Your task to perform on an android device: Open the contacts Image 0: 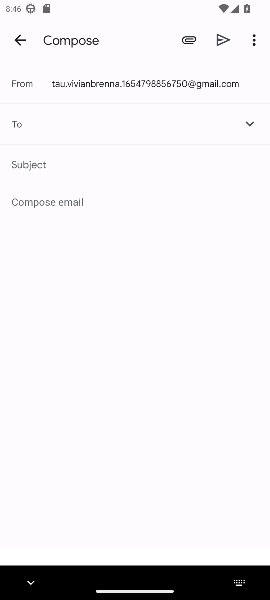
Step 0: press home button
Your task to perform on an android device: Open the contacts Image 1: 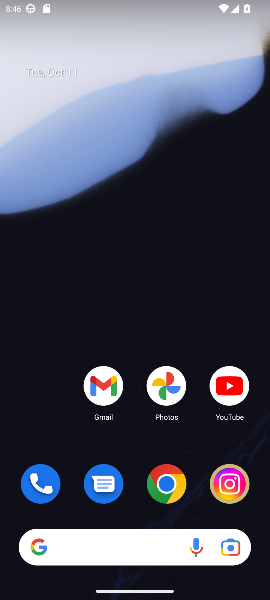
Step 1: drag from (114, 539) to (93, 166)
Your task to perform on an android device: Open the contacts Image 2: 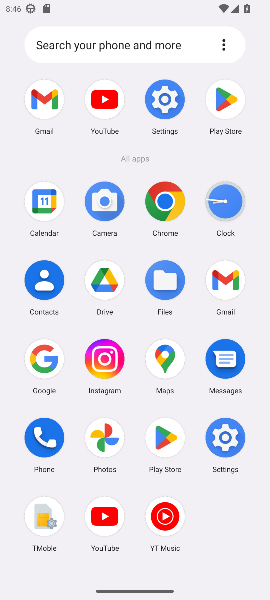
Step 2: click (46, 281)
Your task to perform on an android device: Open the contacts Image 3: 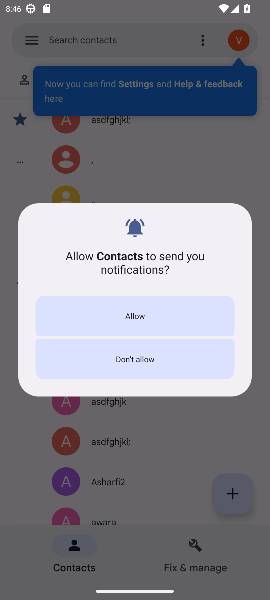
Step 3: click (139, 316)
Your task to perform on an android device: Open the contacts Image 4: 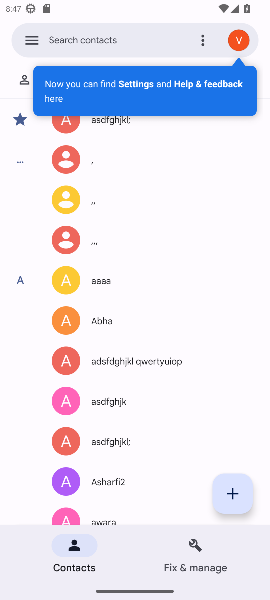
Step 4: task complete